Your task to perform on an android device: turn on improve location accuracy Image 0: 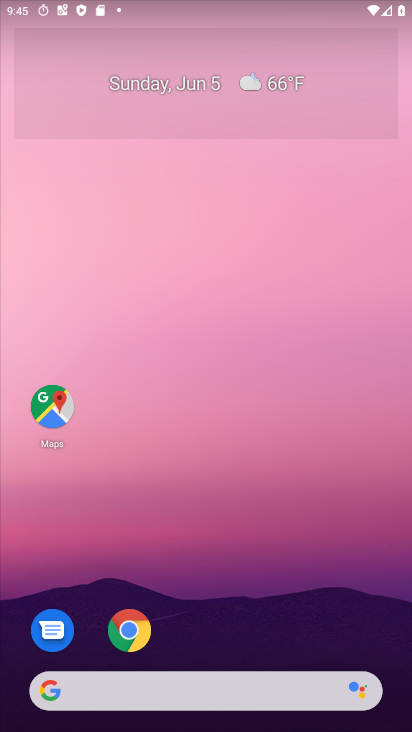
Step 0: drag from (231, 729) to (233, 68)
Your task to perform on an android device: turn on improve location accuracy Image 1: 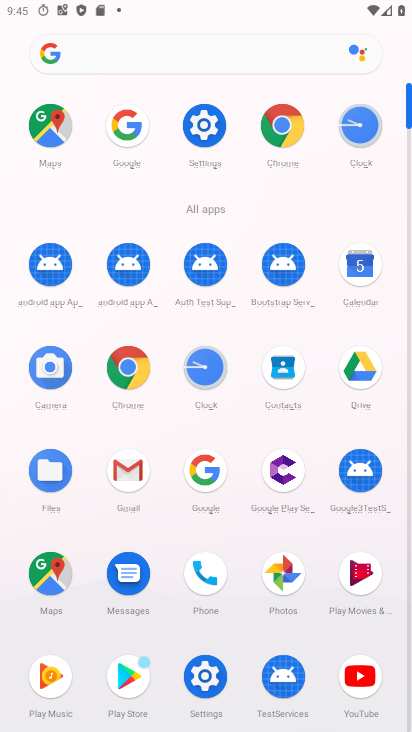
Step 1: click (202, 130)
Your task to perform on an android device: turn on improve location accuracy Image 2: 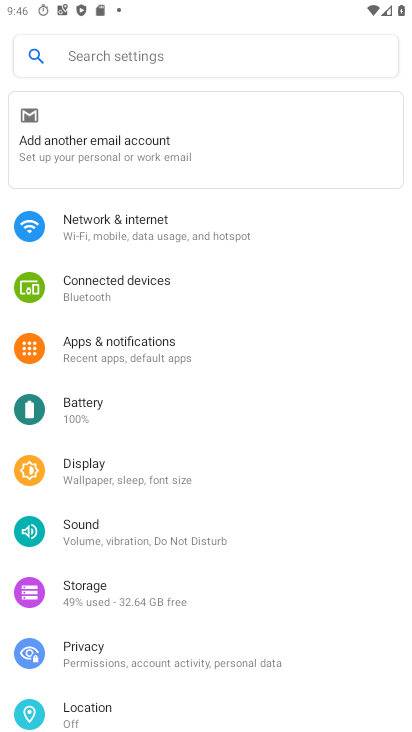
Step 2: click (90, 710)
Your task to perform on an android device: turn on improve location accuracy Image 3: 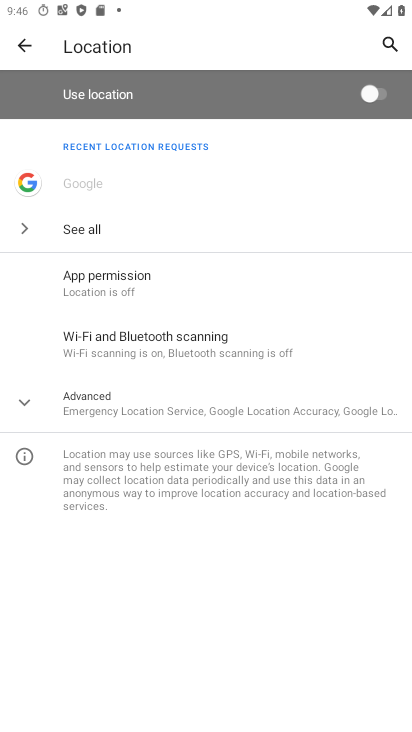
Step 3: click (153, 402)
Your task to perform on an android device: turn on improve location accuracy Image 4: 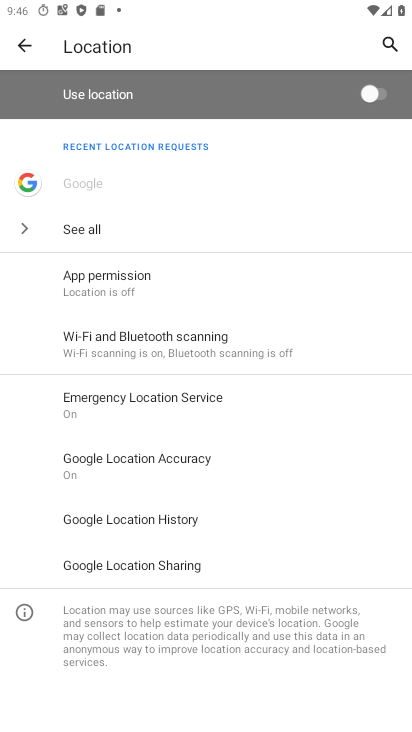
Step 4: click (142, 455)
Your task to perform on an android device: turn on improve location accuracy Image 5: 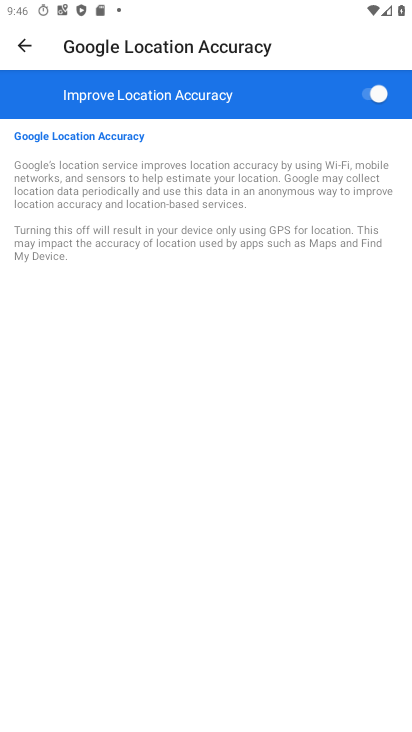
Step 5: task complete